Your task to perform on an android device: turn off translation in the chrome app Image 0: 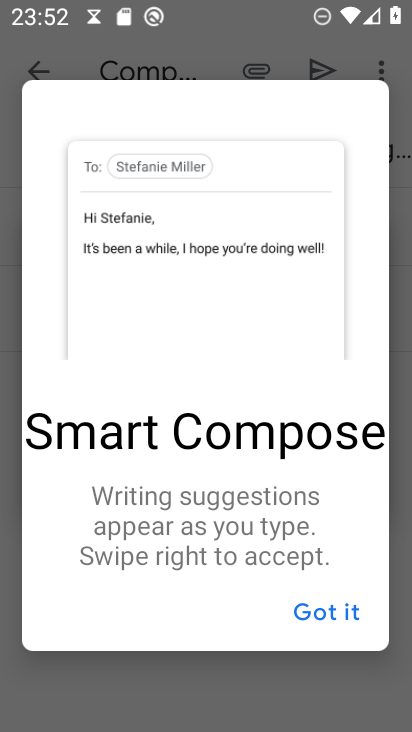
Step 0: press home button
Your task to perform on an android device: turn off translation in the chrome app Image 1: 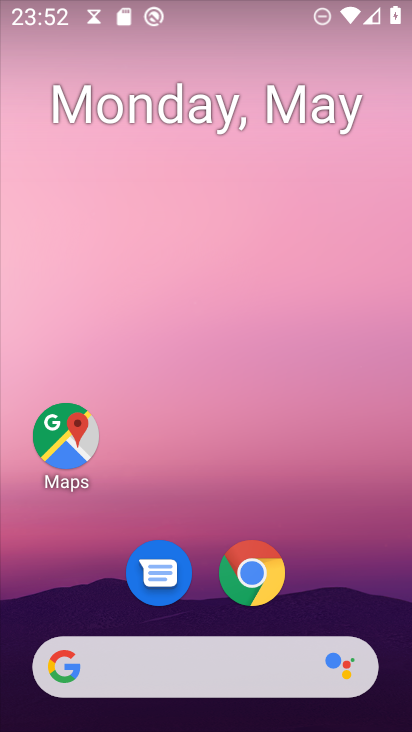
Step 1: click (254, 580)
Your task to perform on an android device: turn off translation in the chrome app Image 2: 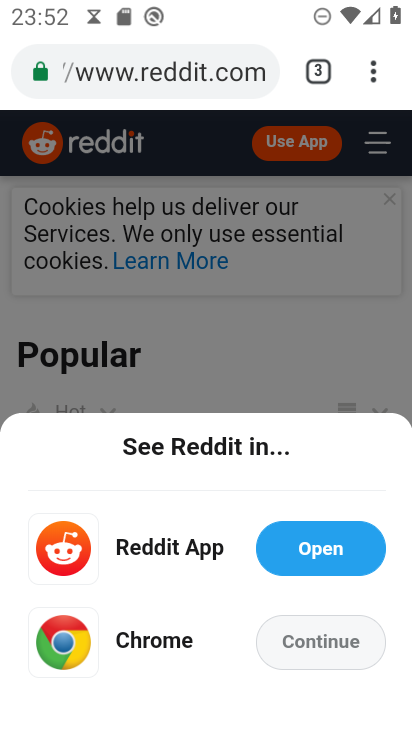
Step 2: click (384, 62)
Your task to perform on an android device: turn off translation in the chrome app Image 3: 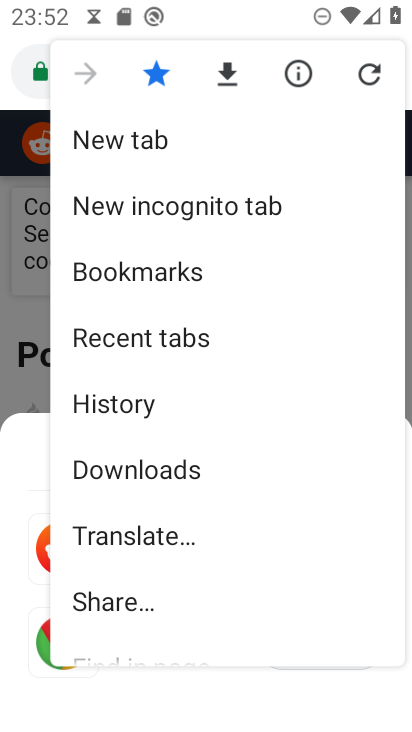
Step 3: drag from (199, 519) to (192, 175)
Your task to perform on an android device: turn off translation in the chrome app Image 4: 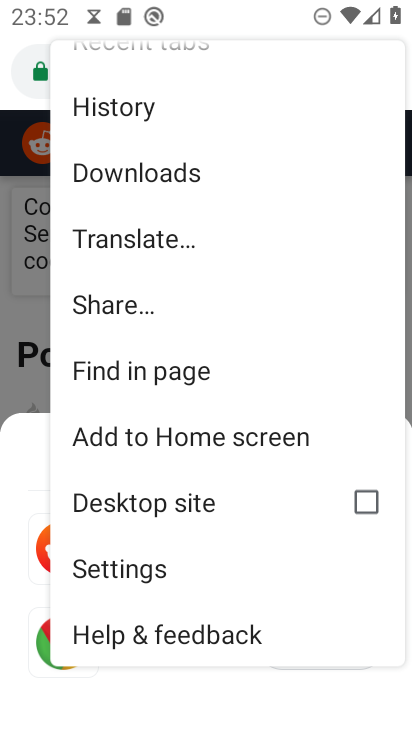
Step 4: click (146, 576)
Your task to perform on an android device: turn off translation in the chrome app Image 5: 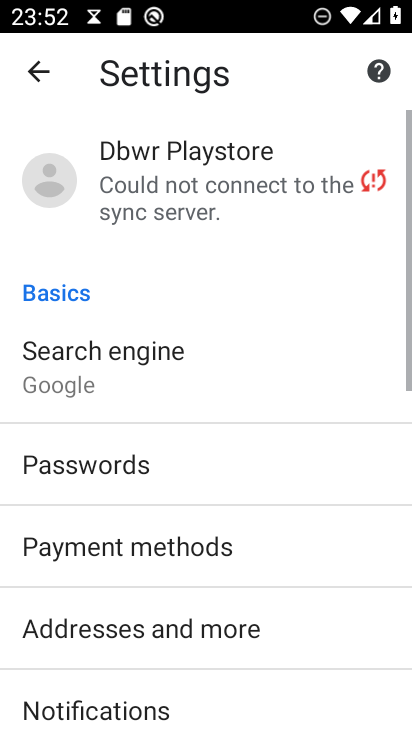
Step 5: drag from (213, 587) to (183, 58)
Your task to perform on an android device: turn off translation in the chrome app Image 6: 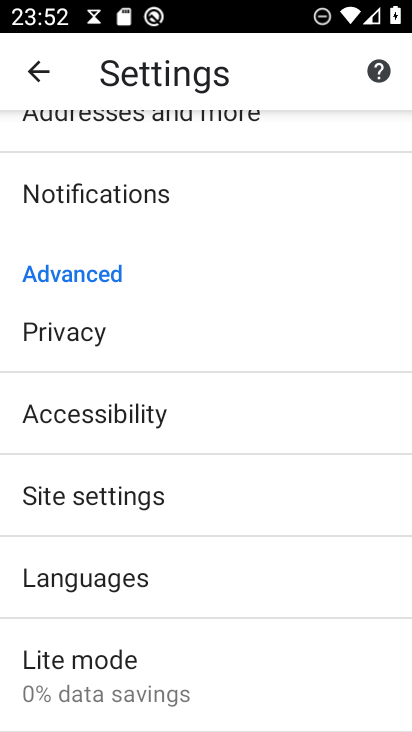
Step 6: click (151, 580)
Your task to perform on an android device: turn off translation in the chrome app Image 7: 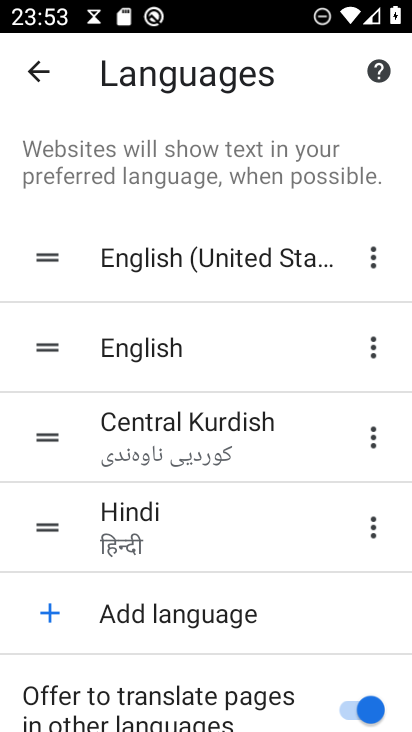
Step 7: click (371, 702)
Your task to perform on an android device: turn off translation in the chrome app Image 8: 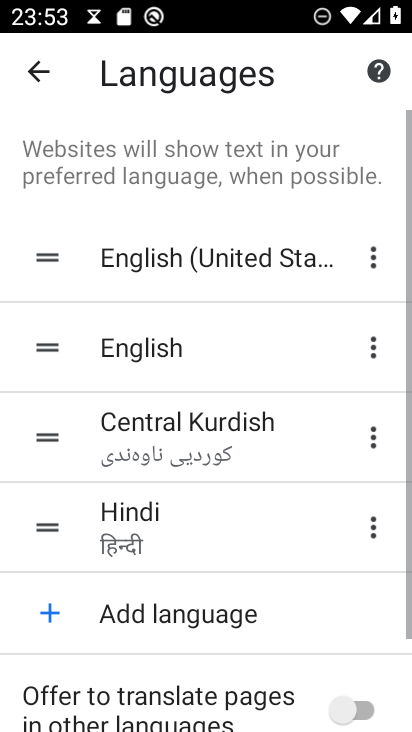
Step 8: task complete